Your task to perform on an android device: Open maps Image 0: 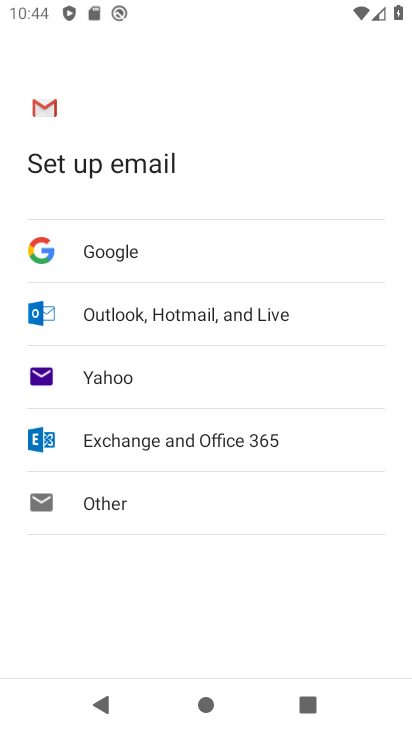
Step 0: press home button
Your task to perform on an android device: Open maps Image 1: 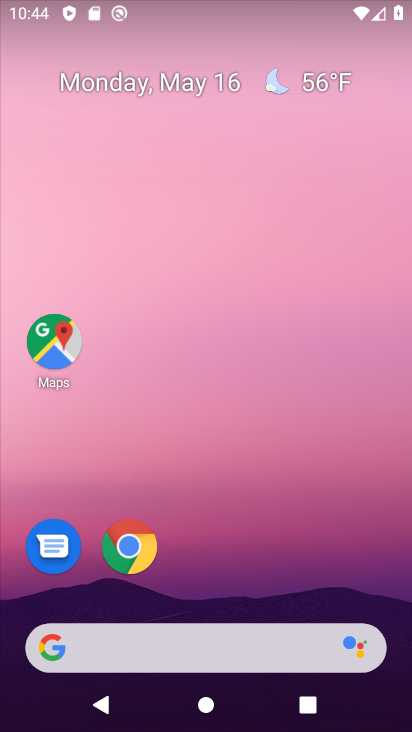
Step 1: drag from (316, 539) to (259, 113)
Your task to perform on an android device: Open maps Image 2: 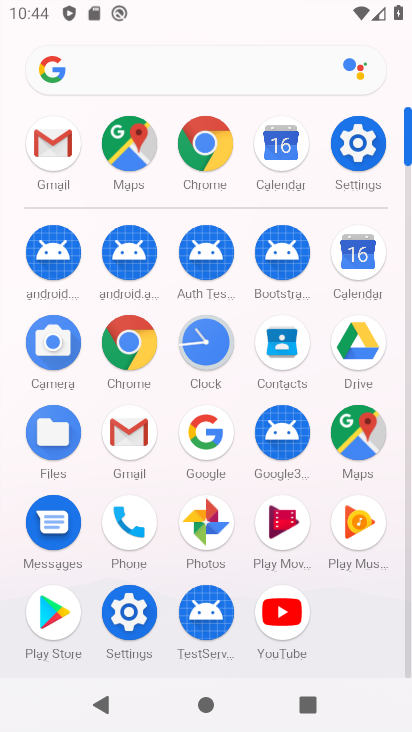
Step 2: click (121, 146)
Your task to perform on an android device: Open maps Image 3: 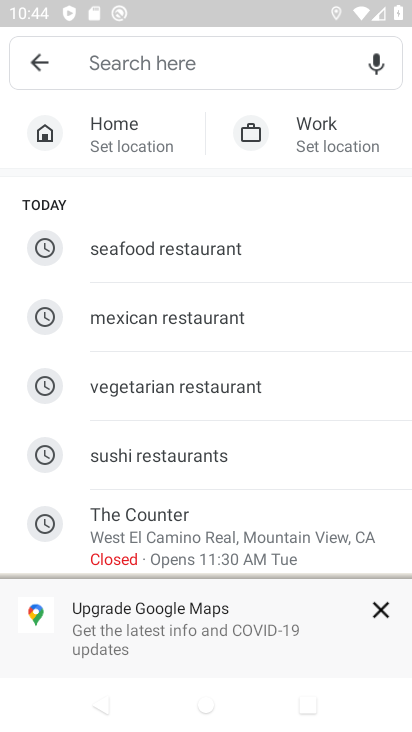
Step 3: task complete